Your task to perform on an android device: move a message to another label in the gmail app Image 0: 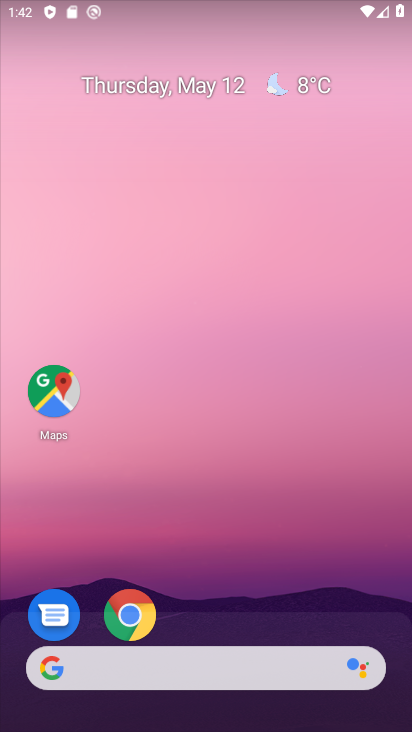
Step 0: drag from (217, 608) to (182, 110)
Your task to perform on an android device: move a message to another label in the gmail app Image 1: 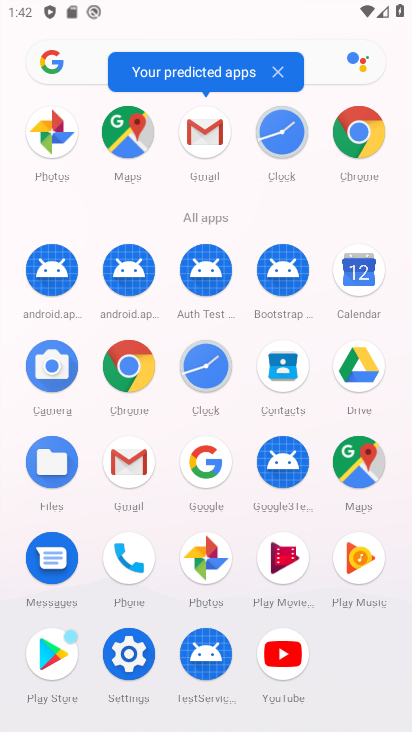
Step 1: click (205, 135)
Your task to perform on an android device: move a message to another label in the gmail app Image 2: 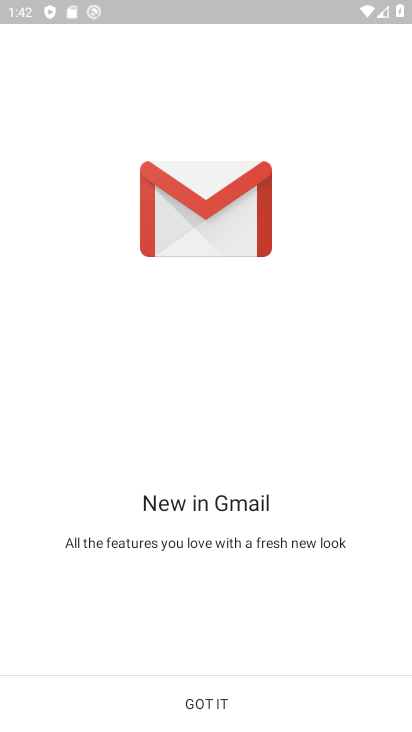
Step 2: click (222, 703)
Your task to perform on an android device: move a message to another label in the gmail app Image 3: 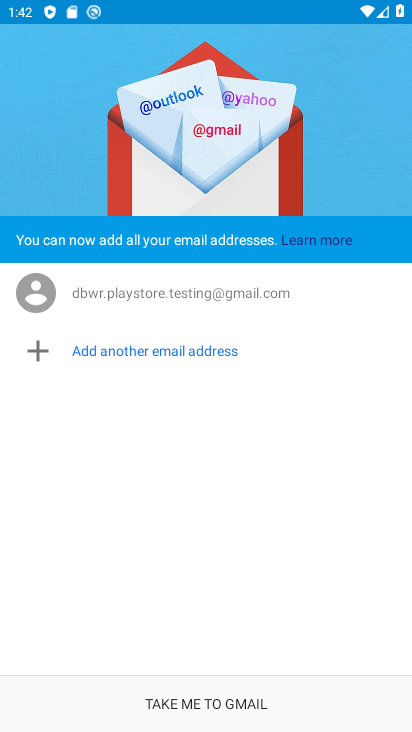
Step 3: click (209, 693)
Your task to perform on an android device: move a message to another label in the gmail app Image 4: 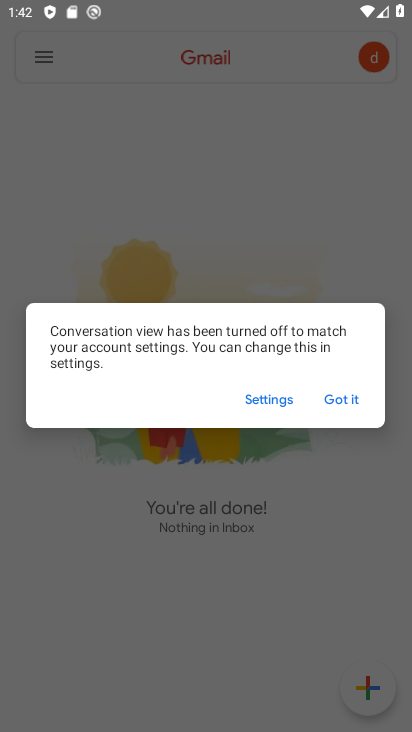
Step 4: click (329, 404)
Your task to perform on an android device: move a message to another label in the gmail app Image 5: 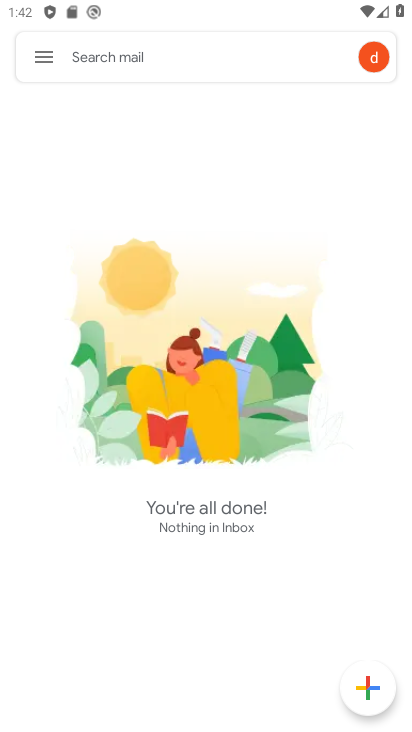
Step 5: click (43, 59)
Your task to perform on an android device: move a message to another label in the gmail app Image 6: 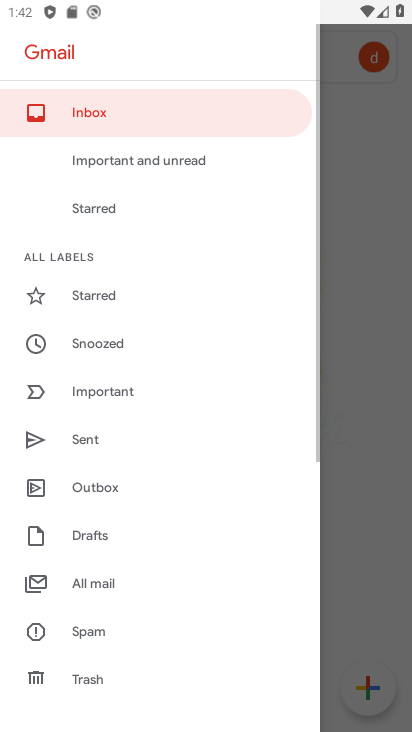
Step 6: drag from (141, 600) to (151, 231)
Your task to perform on an android device: move a message to another label in the gmail app Image 7: 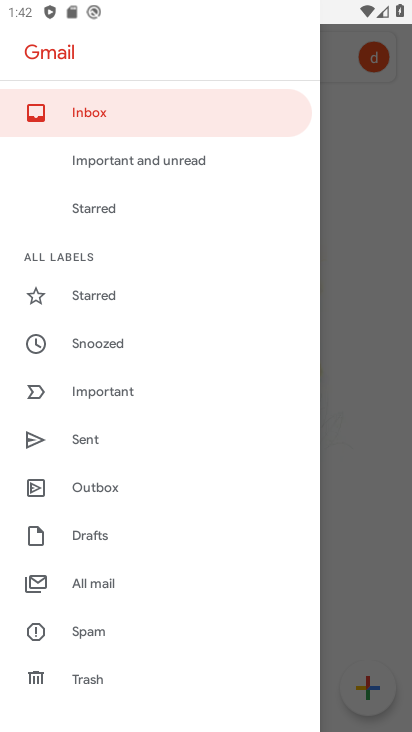
Step 7: click (113, 582)
Your task to perform on an android device: move a message to another label in the gmail app Image 8: 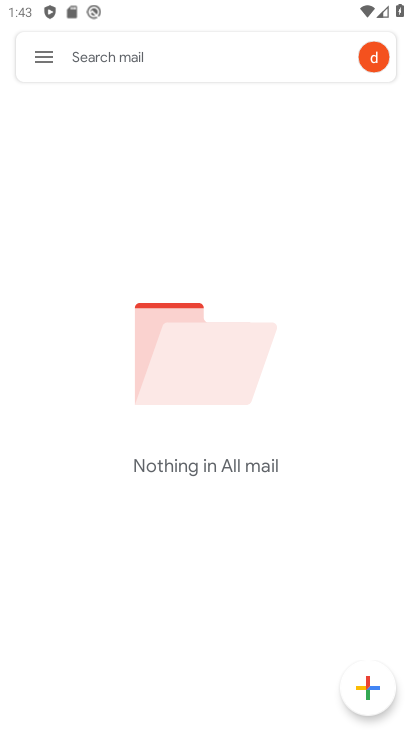
Step 8: task complete